Your task to perform on an android device: find snoozed emails in the gmail app Image 0: 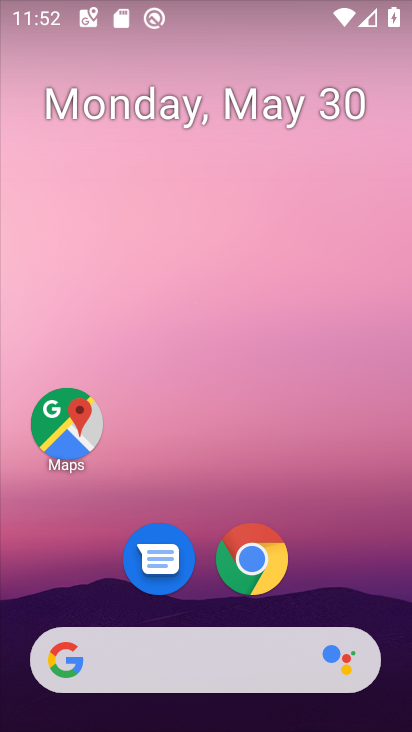
Step 0: drag from (335, 589) to (252, 233)
Your task to perform on an android device: find snoozed emails in the gmail app Image 1: 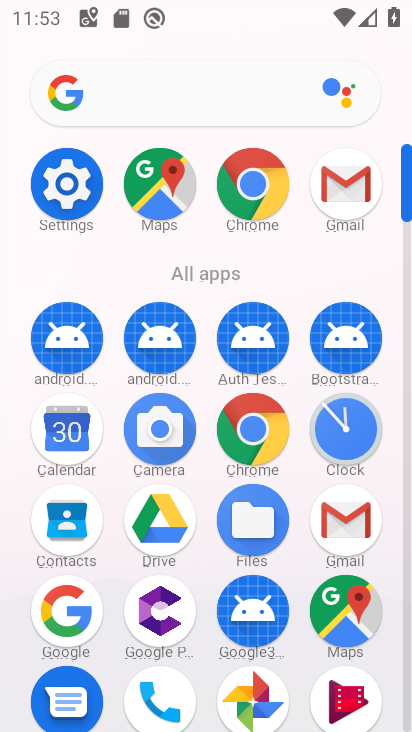
Step 1: click (366, 209)
Your task to perform on an android device: find snoozed emails in the gmail app Image 2: 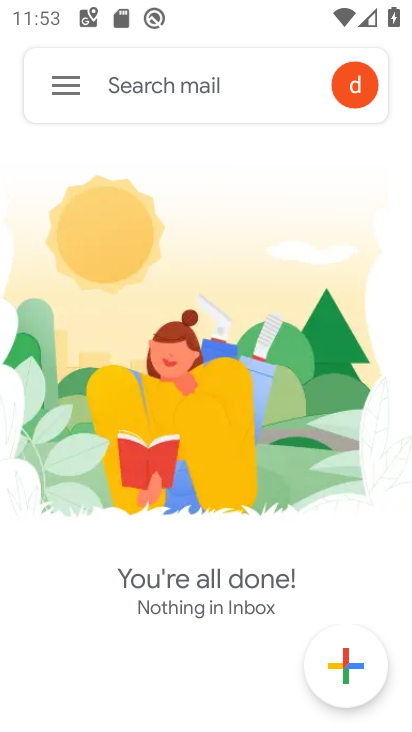
Step 2: click (62, 99)
Your task to perform on an android device: find snoozed emails in the gmail app Image 3: 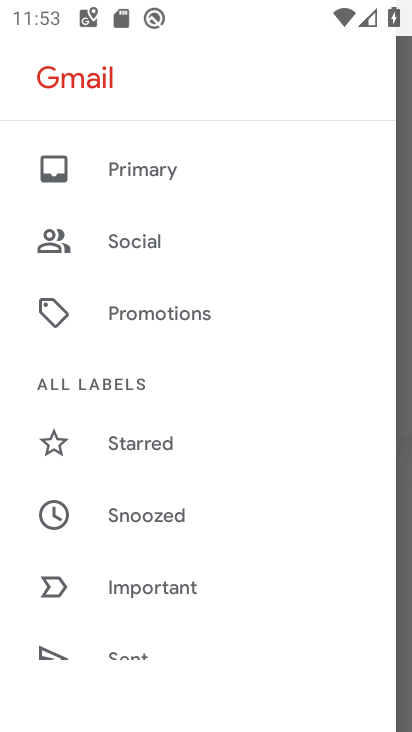
Step 3: click (152, 527)
Your task to perform on an android device: find snoozed emails in the gmail app Image 4: 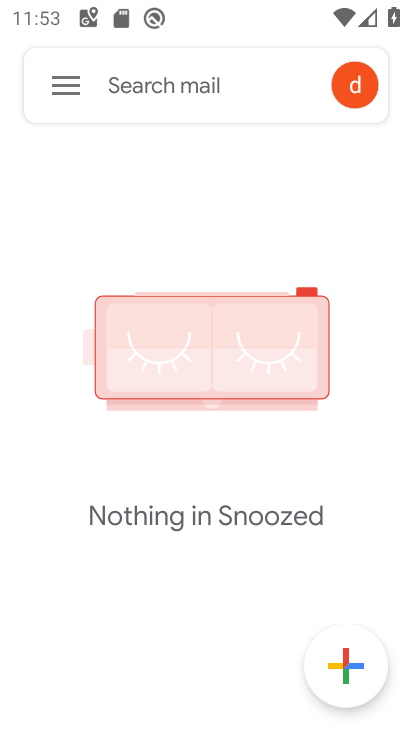
Step 4: task complete